Your task to perform on an android device: turn off airplane mode Image 0: 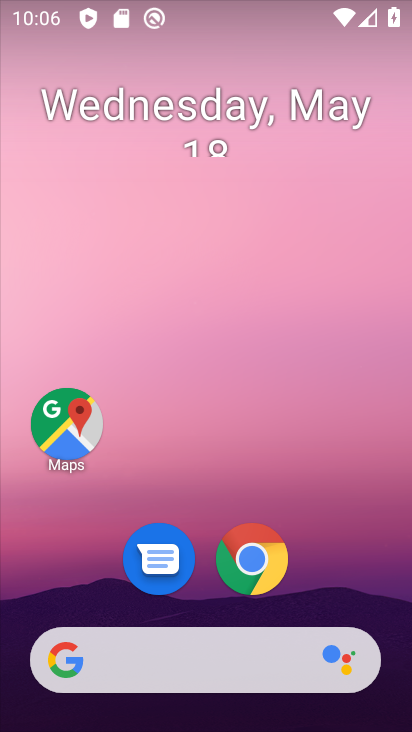
Step 0: drag from (214, 569) to (313, 0)
Your task to perform on an android device: turn off airplane mode Image 1: 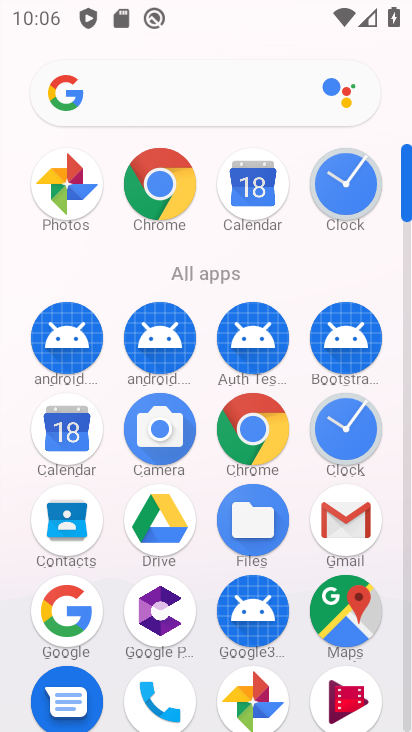
Step 1: drag from (215, 526) to (236, 199)
Your task to perform on an android device: turn off airplane mode Image 2: 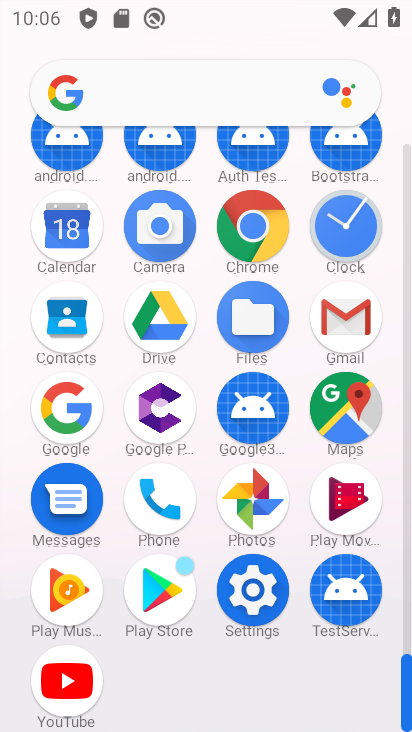
Step 2: click (254, 598)
Your task to perform on an android device: turn off airplane mode Image 3: 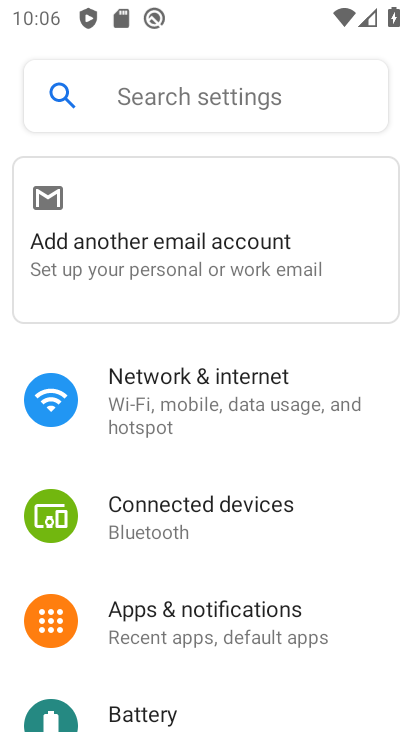
Step 3: click (252, 402)
Your task to perform on an android device: turn off airplane mode Image 4: 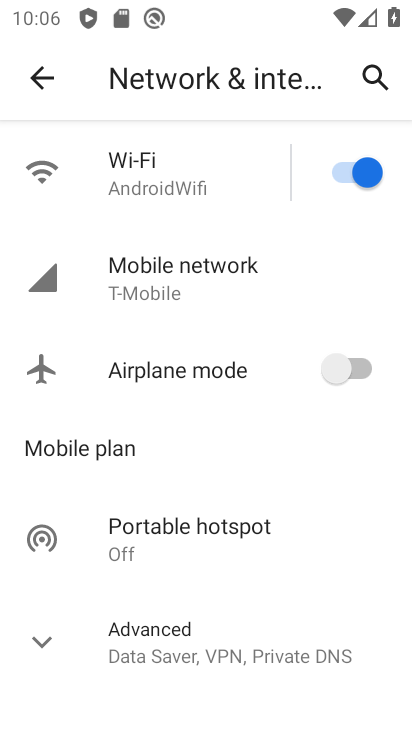
Step 4: task complete